Your task to perform on an android device: Go to settings Image 0: 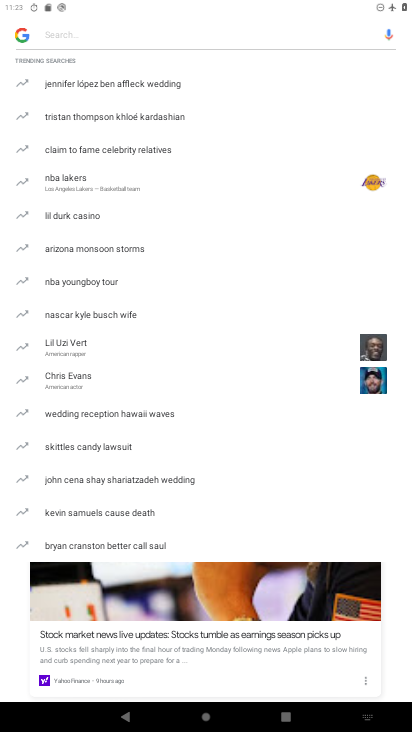
Step 0: press home button
Your task to perform on an android device: Go to settings Image 1: 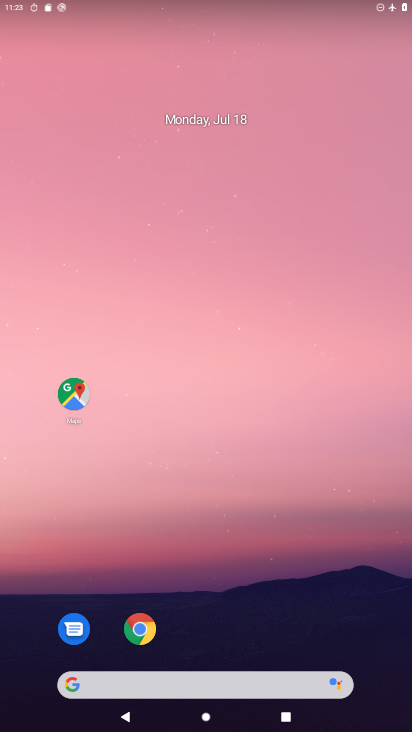
Step 1: drag from (302, 597) to (304, 58)
Your task to perform on an android device: Go to settings Image 2: 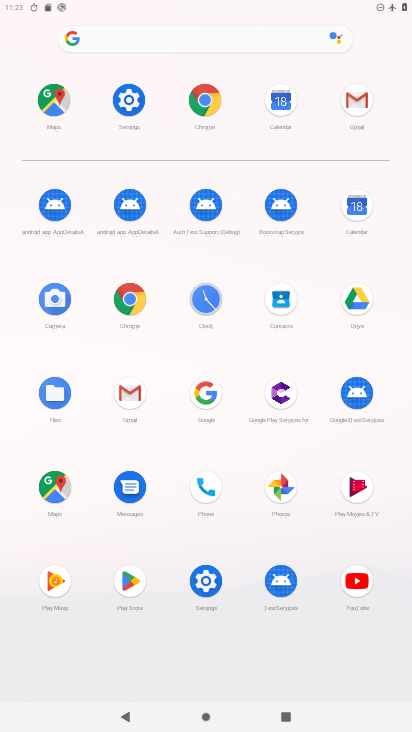
Step 2: click (129, 98)
Your task to perform on an android device: Go to settings Image 3: 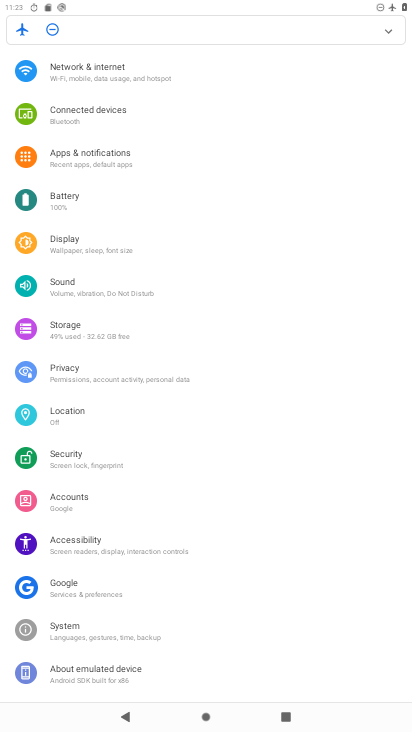
Step 3: task complete